Your task to perform on an android device: see creations saved in the google photos Image 0: 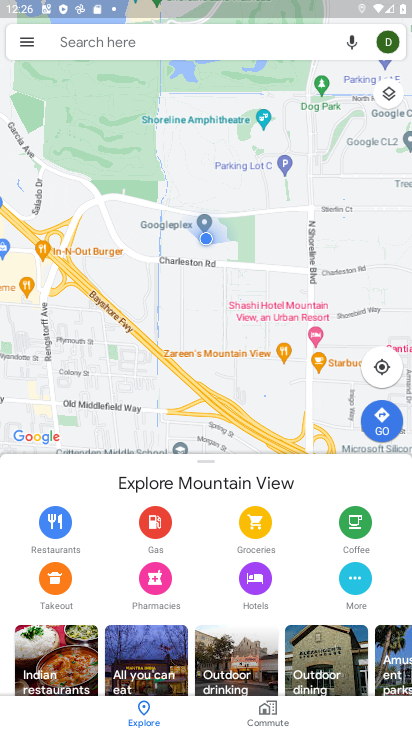
Step 0: press home button
Your task to perform on an android device: see creations saved in the google photos Image 1: 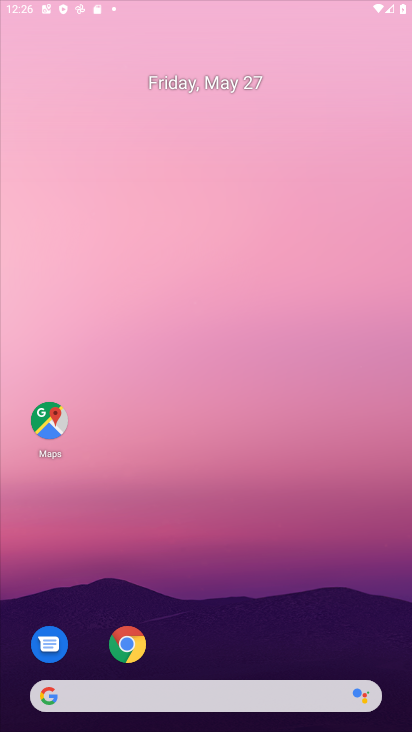
Step 1: drag from (294, 671) to (294, 111)
Your task to perform on an android device: see creations saved in the google photos Image 2: 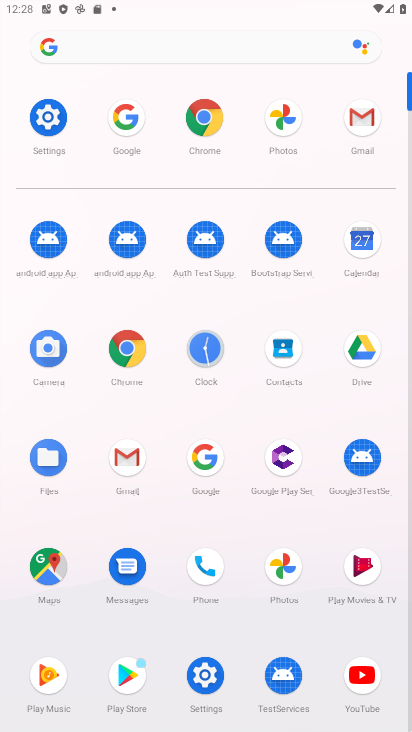
Step 2: click (282, 569)
Your task to perform on an android device: see creations saved in the google photos Image 3: 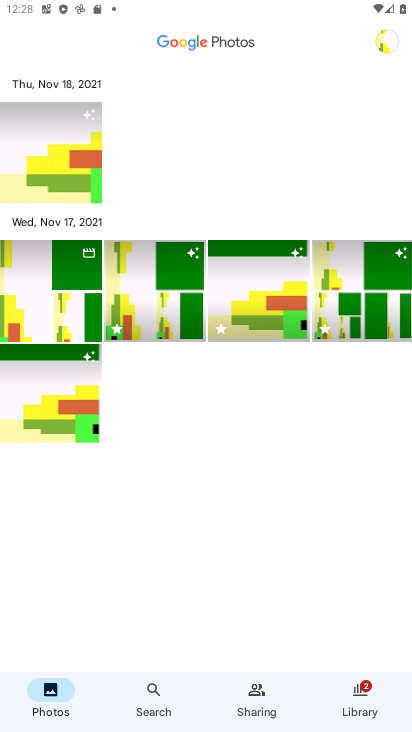
Step 3: click (160, 687)
Your task to perform on an android device: see creations saved in the google photos Image 4: 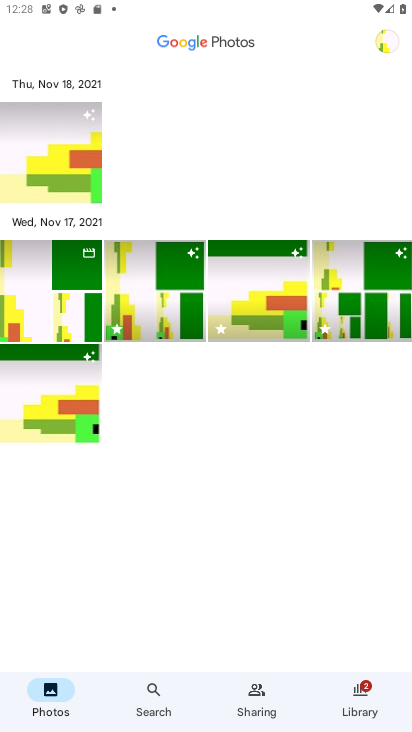
Step 4: click (137, 694)
Your task to perform on an android device: see creations saved in the google photos Image 5: 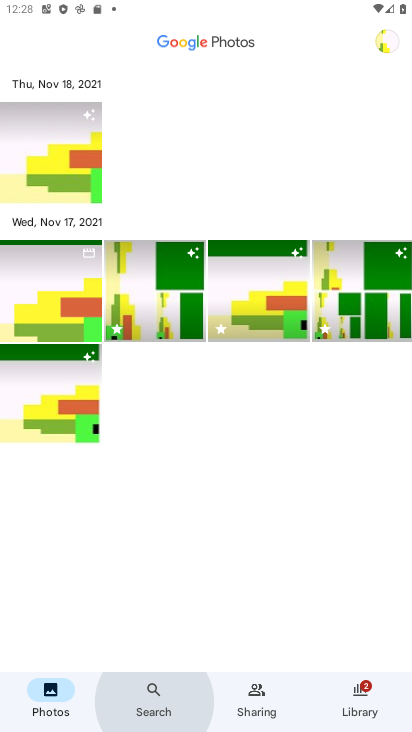
Step 5: click (148, 686)
Your task to perform on an android device: see creations saved in the google photos Image 6: 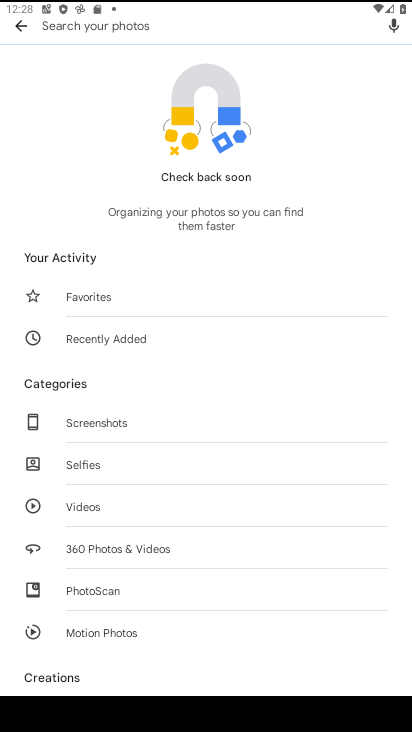
Step 6: drag from (92, 666) to (174, 211)
Your task to perform on an android device: see creations saved in the google photos Image 7: 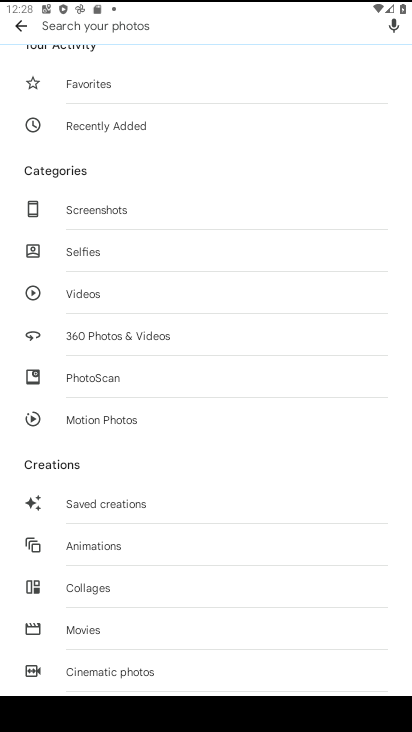
Step 7: click (115, 514)
Your task to perform on an android device: see creations saved in the google photos Image 8: 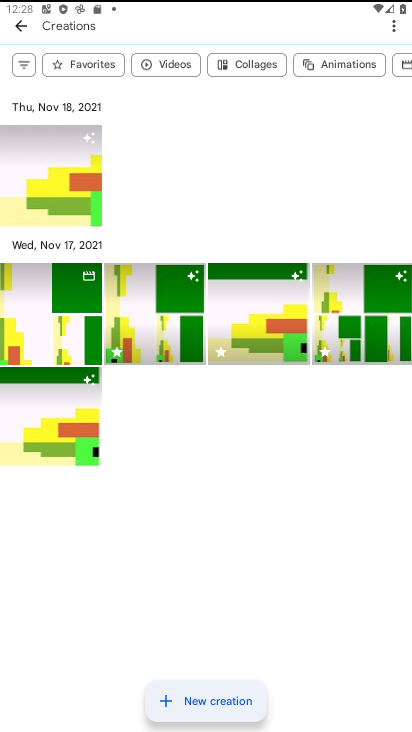
Step 8: task complete